Your task to perform on an android device: Open Maps and search for coffee Image 0: 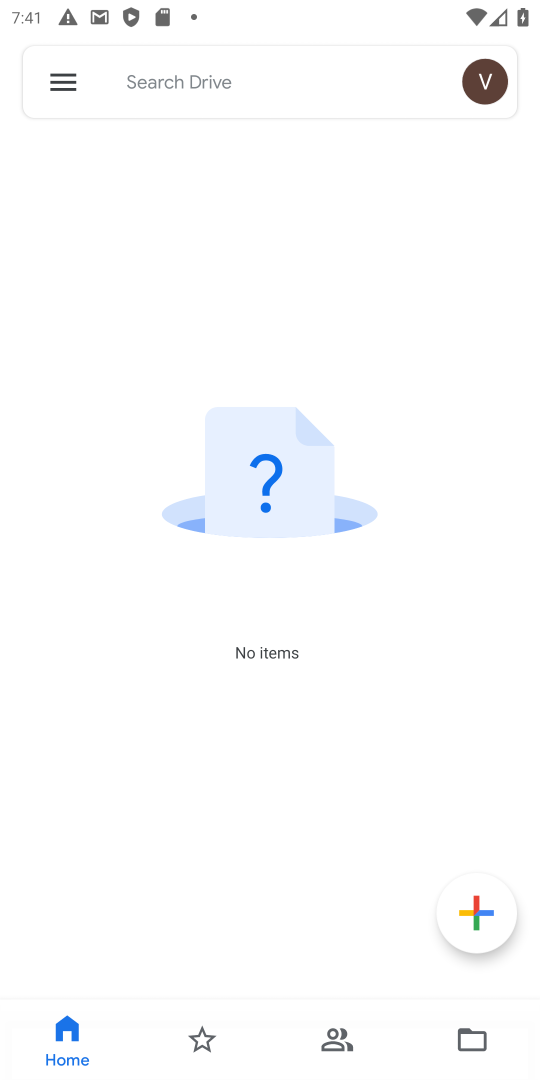
Step 0: press home button
Your task to perform on an android device: Open Maps and search for coffee Image 1: 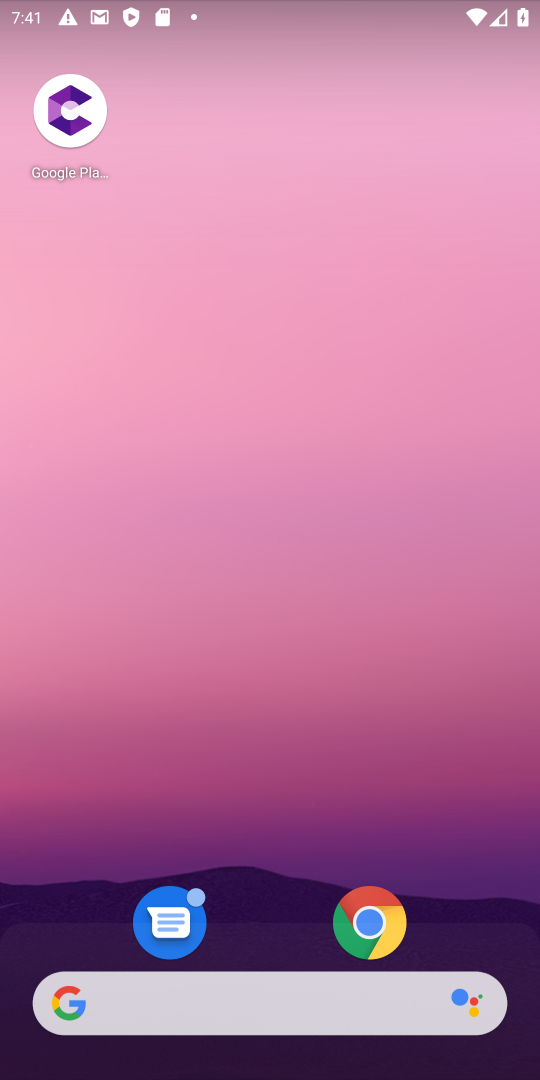
Step 1: drag from (269, 894) to (255, 190)
Your task to perform on an android device: Open Maps and search for coffee Image 2: 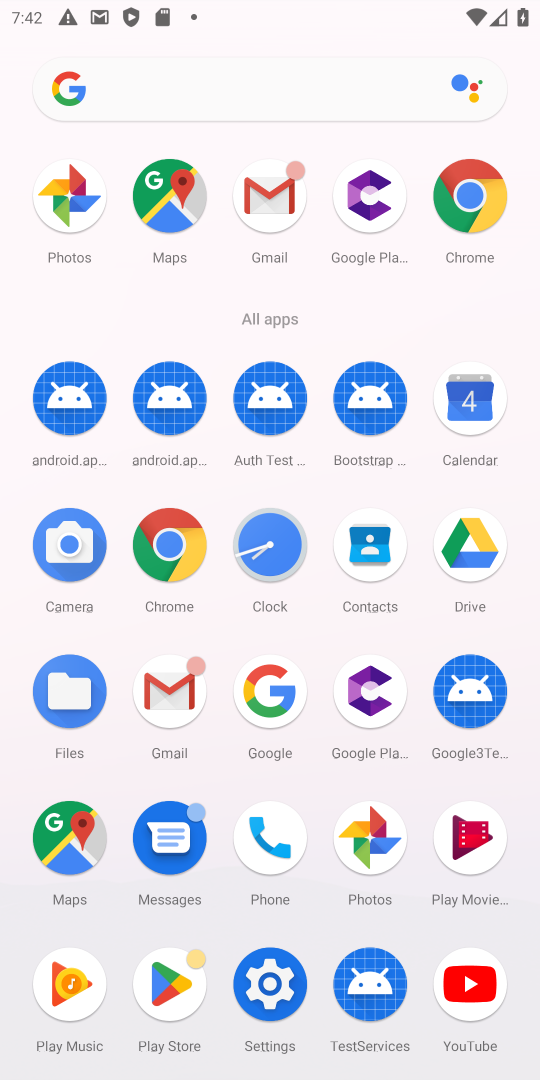
Step 2: click (84, 836)
Your task to perform on an android device: Open Maps and search for coffee Image 3: 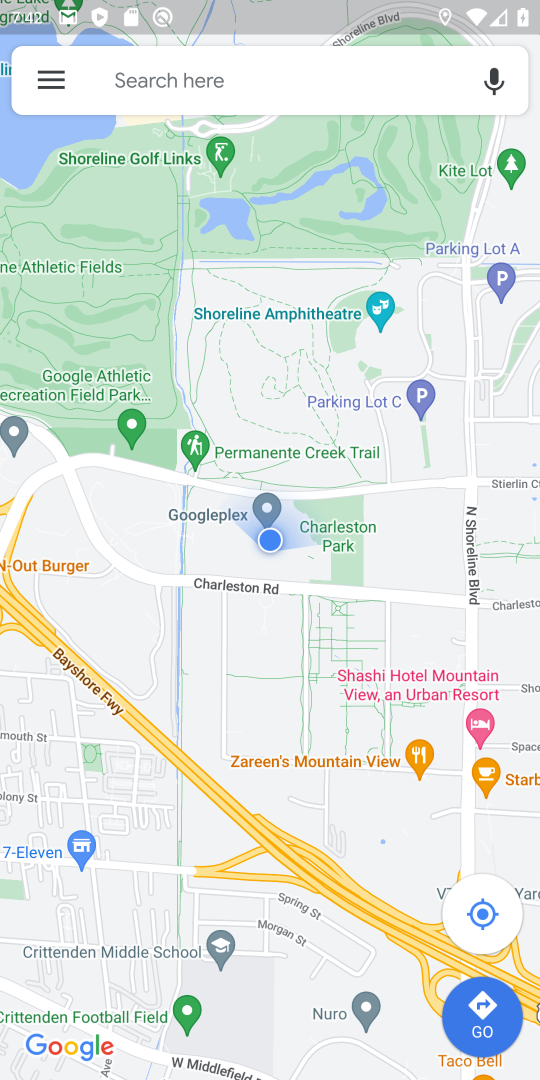
Step 3: click (263, 86)
Your task to perform on an android device: Open Maps and search for coffee Image 4: 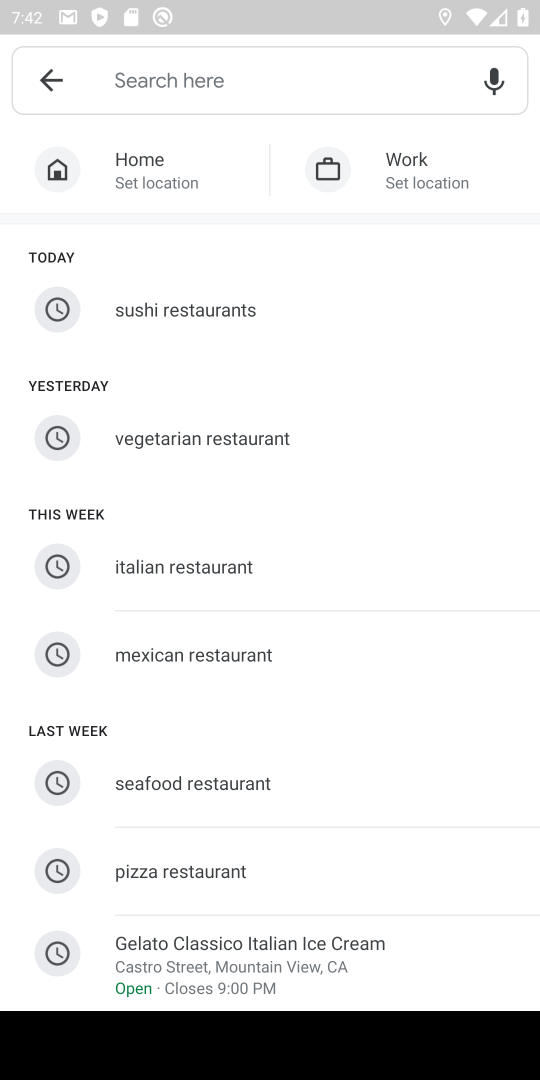
Step 4: drag from (419, 595) to (304, 225)
Your task to perform on an android device: Open Maps and search for coffee Image 5: 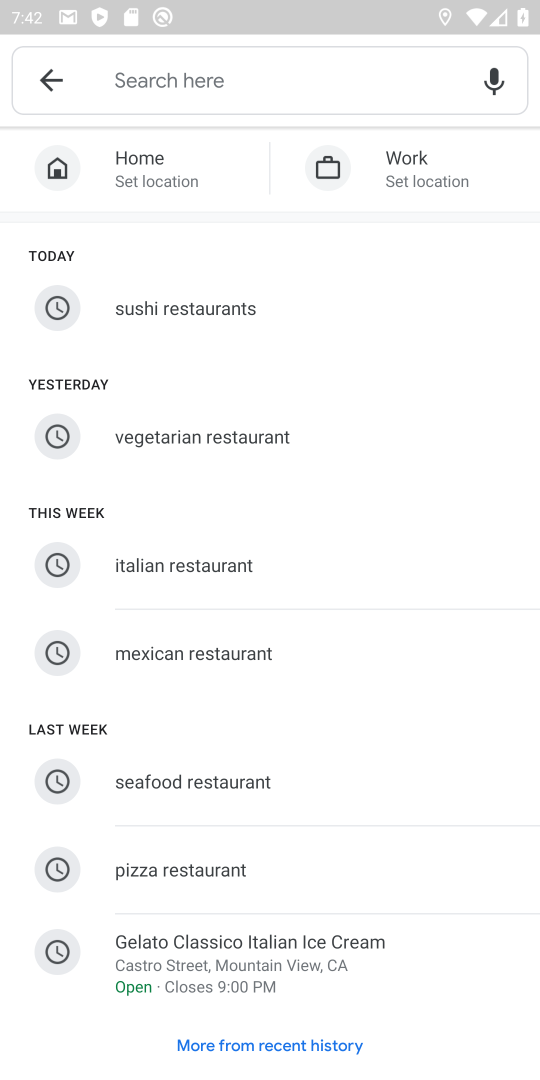
Step 5: click (269, 88)
Your task to perform on an android device: Open Maps and search for coffee Image 6: 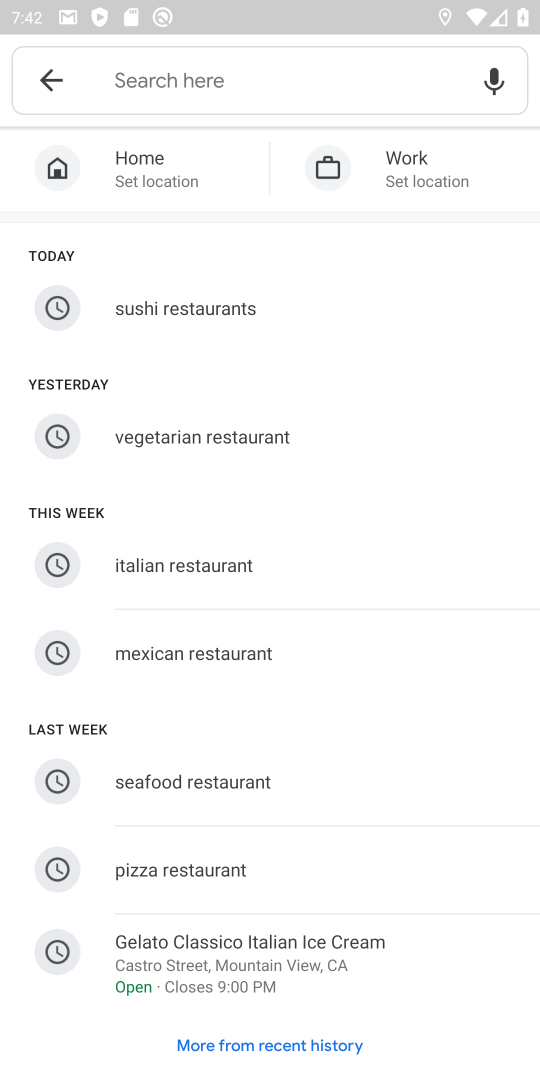
Step 6: click (269, 88)
Your task to perform on an android device: Open Maps and search for coffee Image 7: 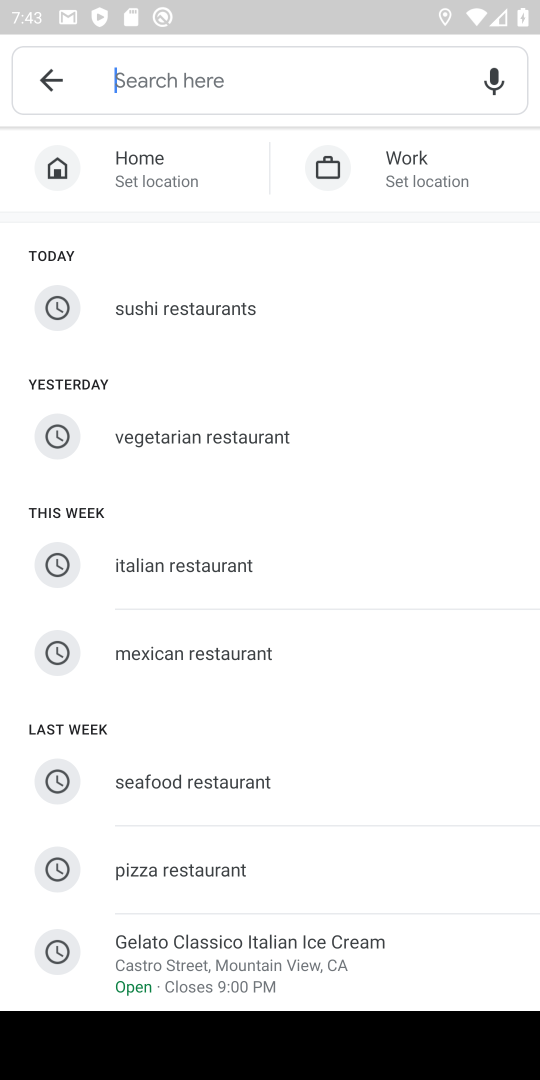
Step 7: type "coffee"
Your task to perform on an android device: Open Maps and search for coffee Image 8: 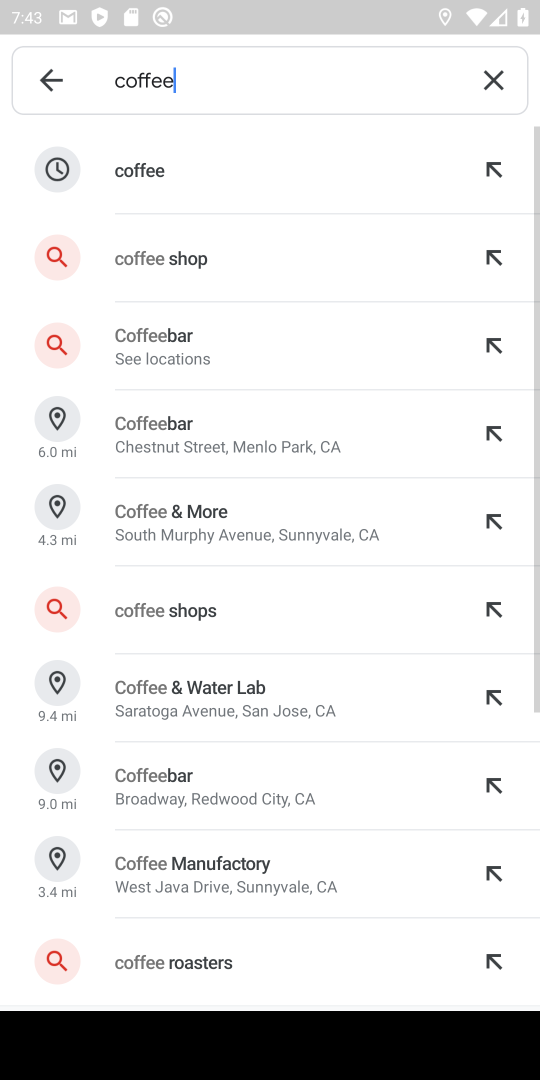
Step 8: click (213, 169)
Your task to perform on an android device: Open Maps and search for coffee Image 9: 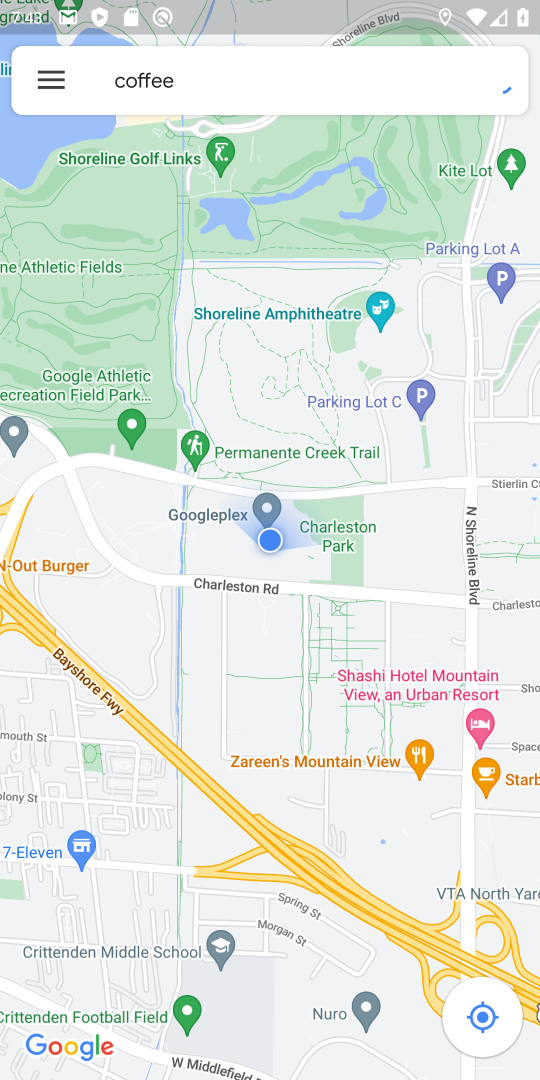
Step 9: click (185, 170)
Your task to perform on an android device: Open Maps and search for coffee Image 10: 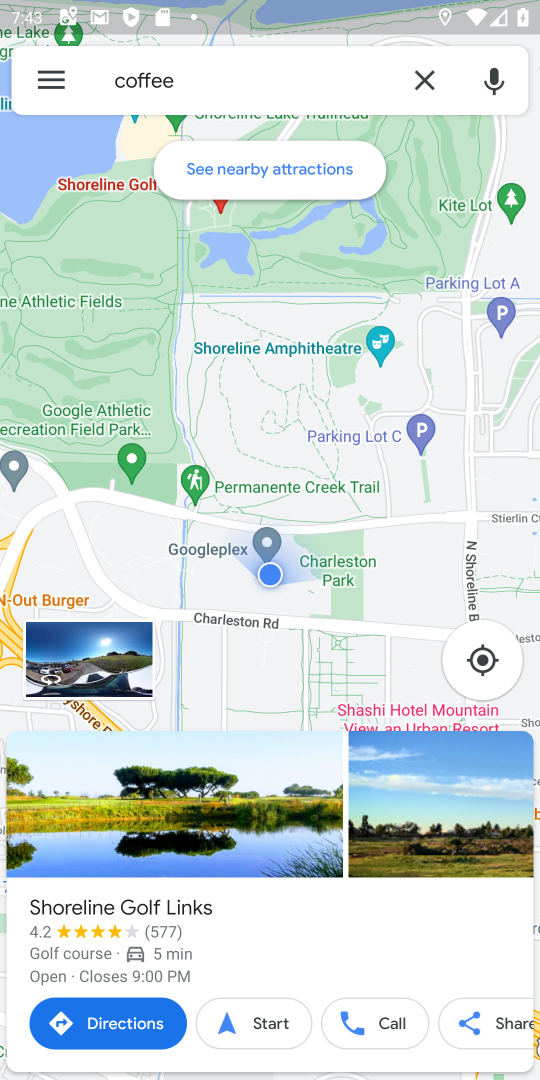
Step 10: task complete